Your task to perform on an android device: turn on showing notifications on the lock screen Image 0: 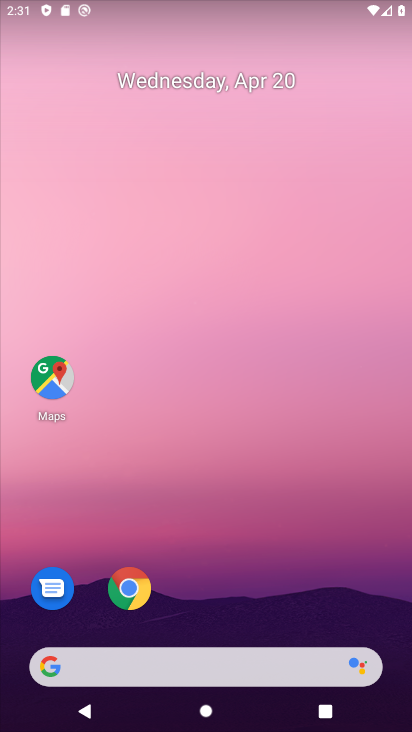
Step 0: click (237, 93)
Your task to perform on an android device: turn on showing notifications on the lock screen Image 1: 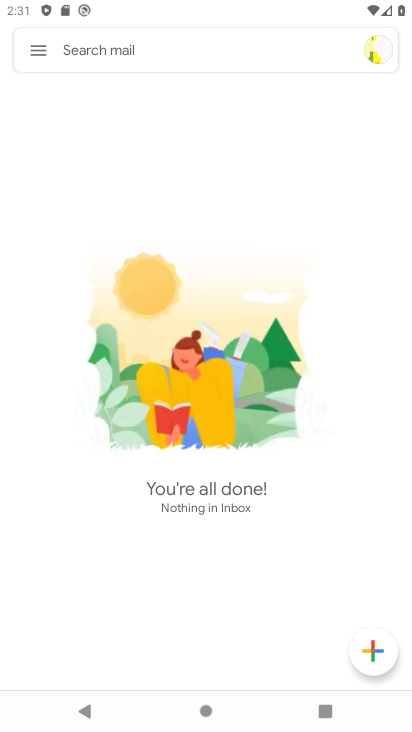
Step 1: press home button
Your task to perform on an android device: turn on showing notifications on the lock screen Image 2: 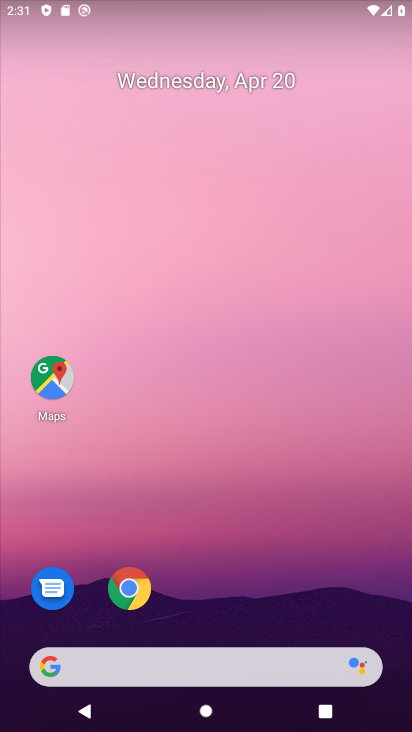
Step 2: drag from (220, 603) to (229, 121)
Your task to perform on an android device: turn on showing notifications on the lock screen Image 3: 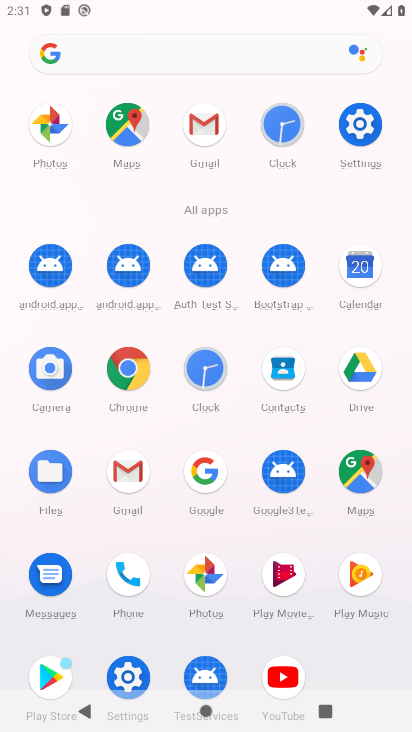
Step 3: click (348, 120)
Your task to perform on an android device: turn on showing notifications on the lock screen Image 4: 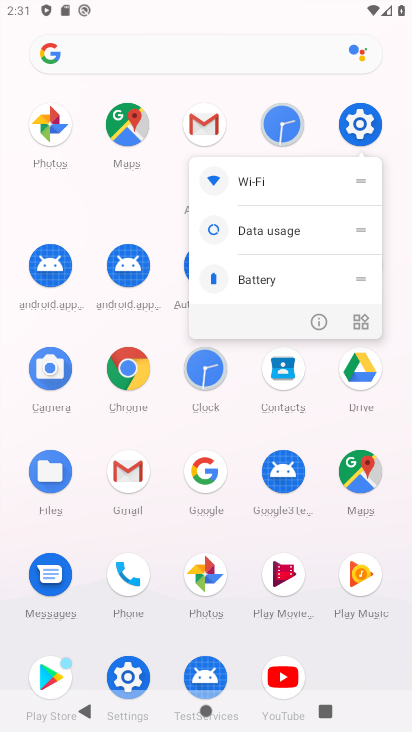
Step 4: click (348, 120)
Your task to perform on an android device: turn on showing notifications on the lock screen Image 5: 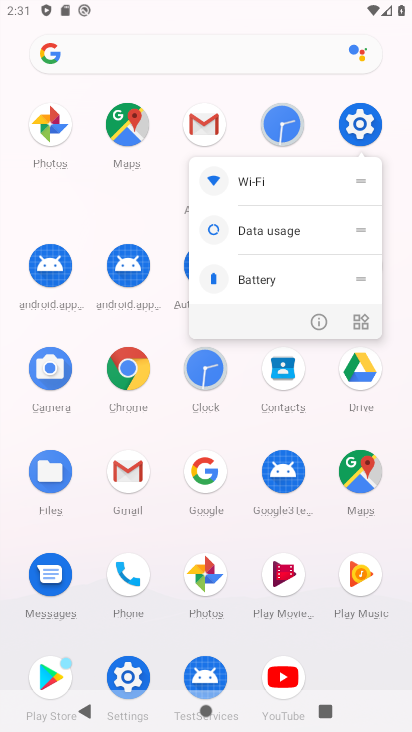
Step 5: click (348, 120)
Your task to perform on an android device: turn on showing notifications on the lock screen Image 6: 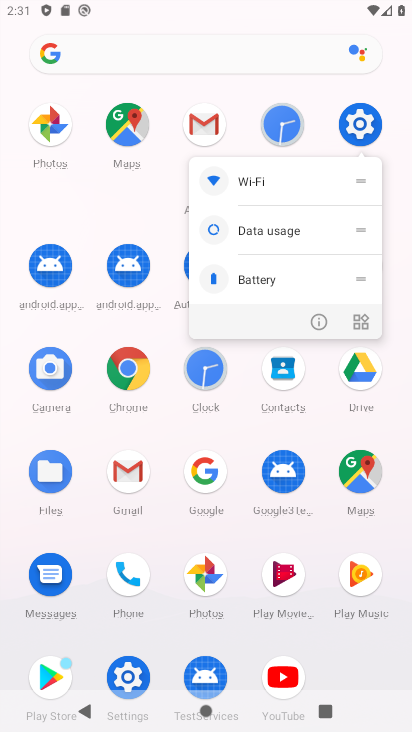
Step 6: click (351, 117)
Your task to perform on an android device: turn on showing notifications on the lock screen Image 7: 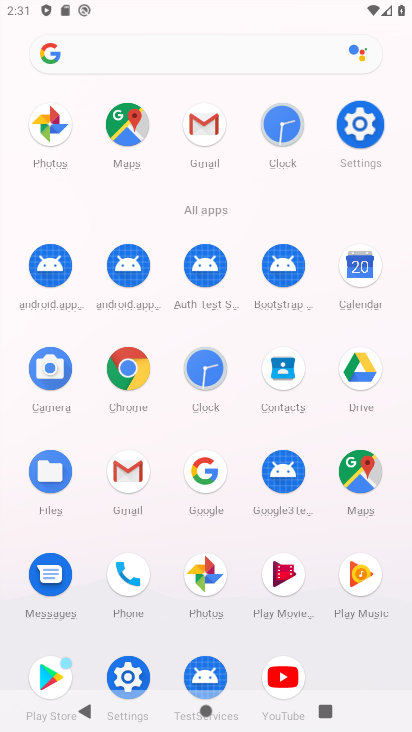
Step 7: click (351, 117)
Your task to perform on an android device: turn on showing notifications on the lock screen Image 8: 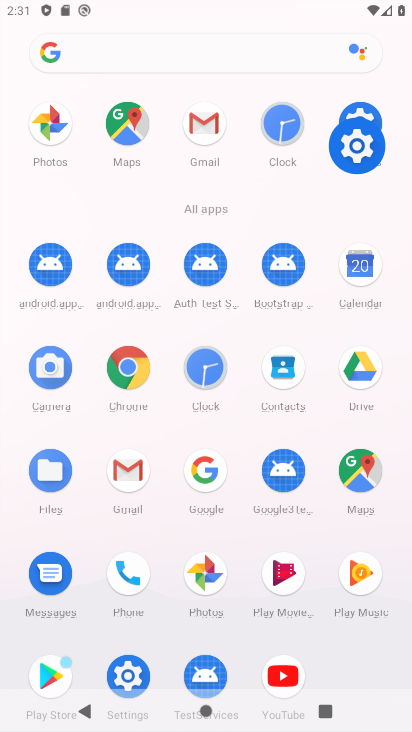
Step 8: click (351, 117)
Your task to perform on an android device: turn on showing notifications on the lock screen Image 9: 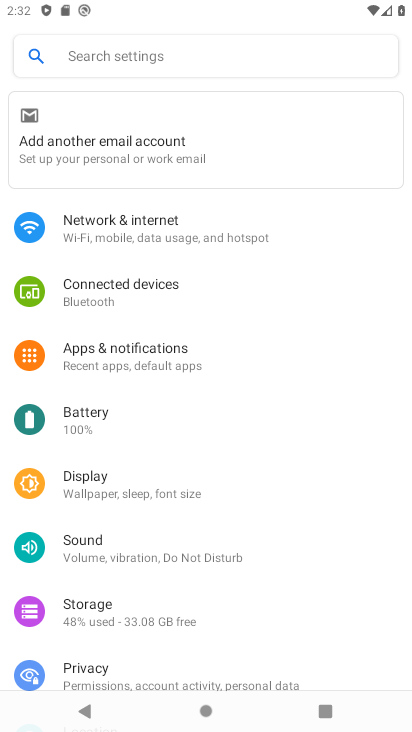
Step 9: click (129, 344)
Your task to perform on an android device: turn on showing notifications on the lock screen Image 10: 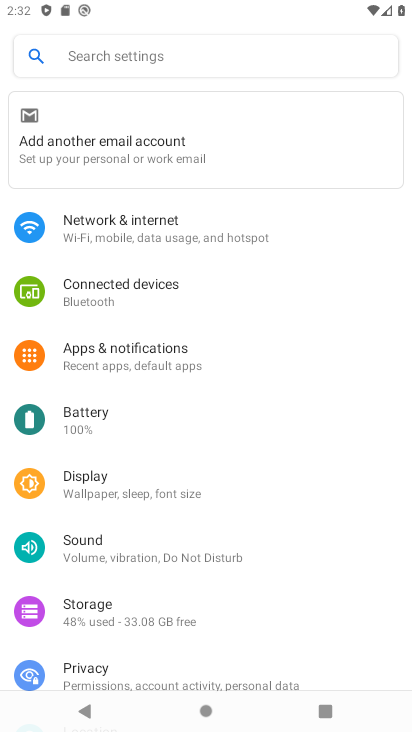
Step 10: click (148, 349)
Your task to perform on an android device: turn on showing notifications on the lock screen Image 11: 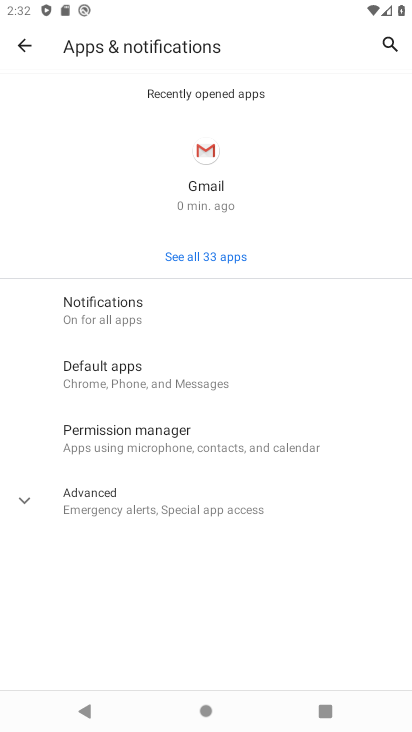
Step 11: click (94, 303)
Your task to perform on an android device: turn on showing notifications on the lock screen Image 12: 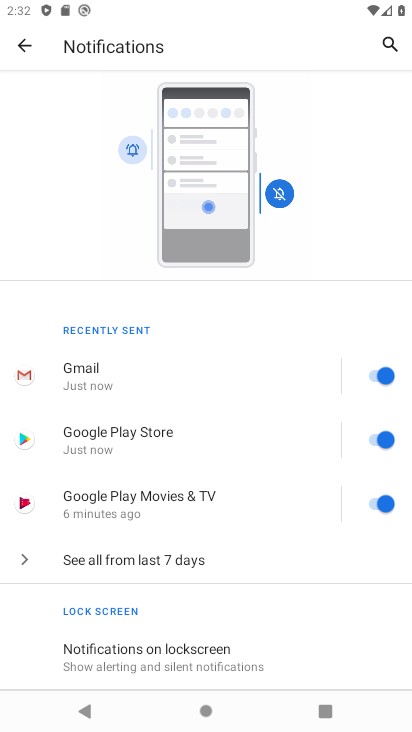
Step 12: drag from (175, 482) to (139, 254)
Your task to perform on an android device: turn on showing notifications on the lock screen Image 13: 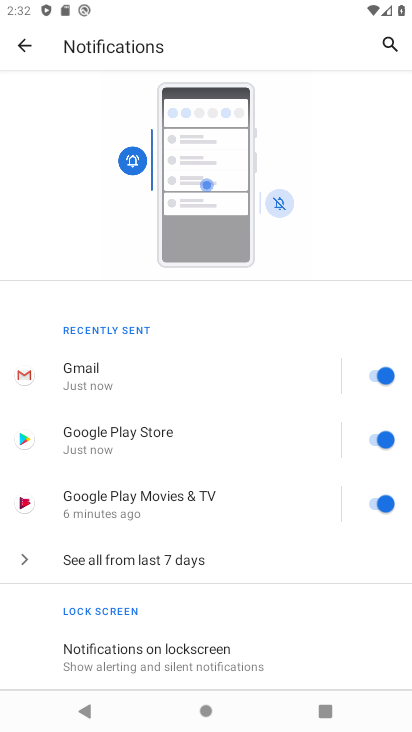
Step 13: drag from (225, 324) to (221, 178)
Your task to perform on an android device: turn on showing notifications on the lock screen Image 14: 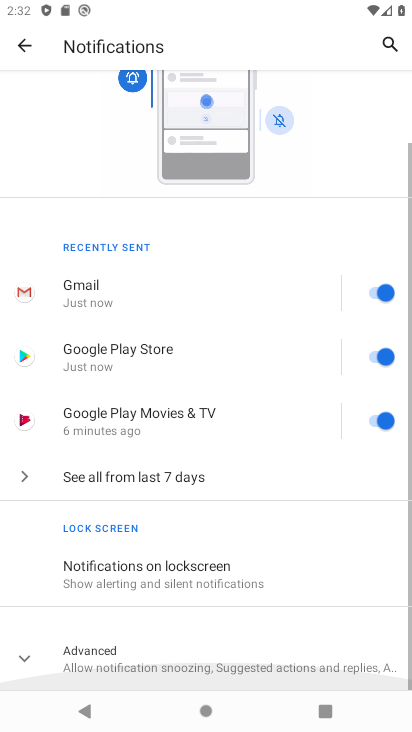
Step 14: drag from (258, 414) to (246, 229)
Your task to perform on an android device: turn on showing notifications on the lock screen Image 15: 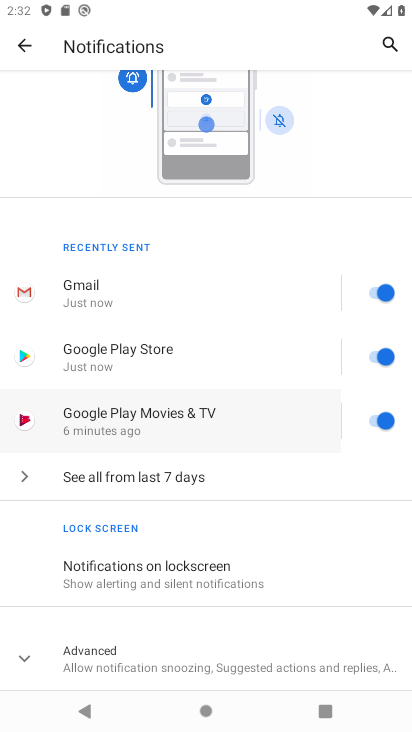
Step 15: drag from (237, 466) to (267, 245)
Your task to perform on an android device: turn on showing notifications on the lock screen Image 16: 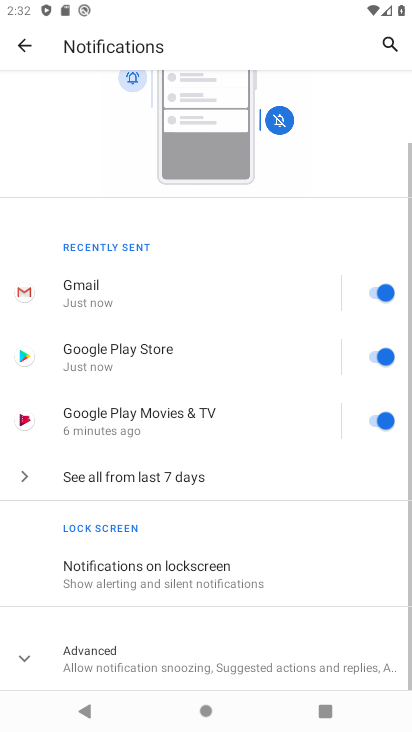
Step 16: click (145, 570)
Your task to perform on an android device: turn on showing notifications on the lock screen Image 17: 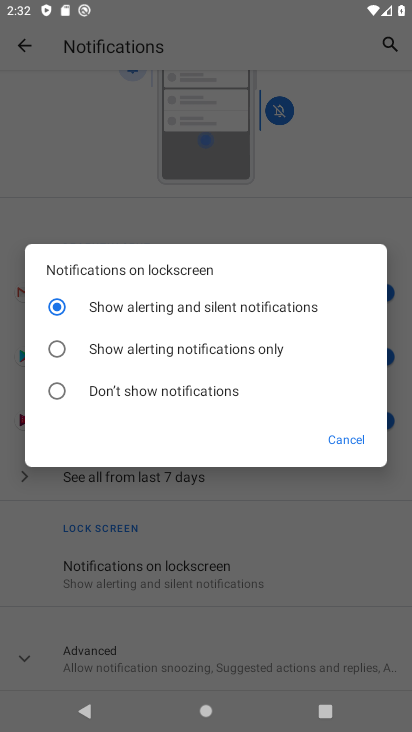
Step 17: click (163, 553)
Your task to perform on an android device: turn on showing notifications on the lock screen Image 18: 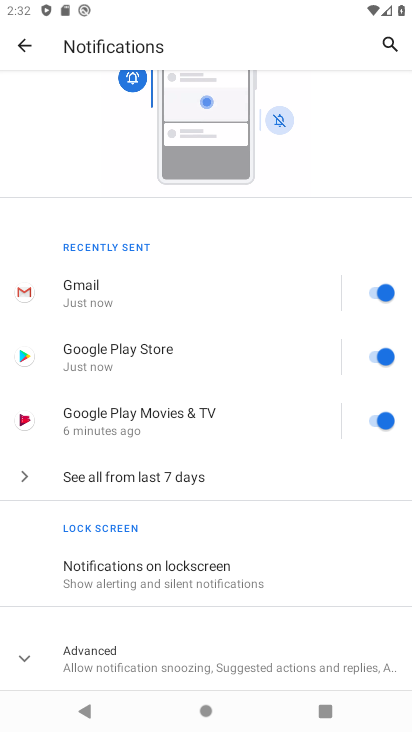
Step 18: click (160, 576)
Your task to perform on an android device: turn on showing notifications on the lock screen Image 19: 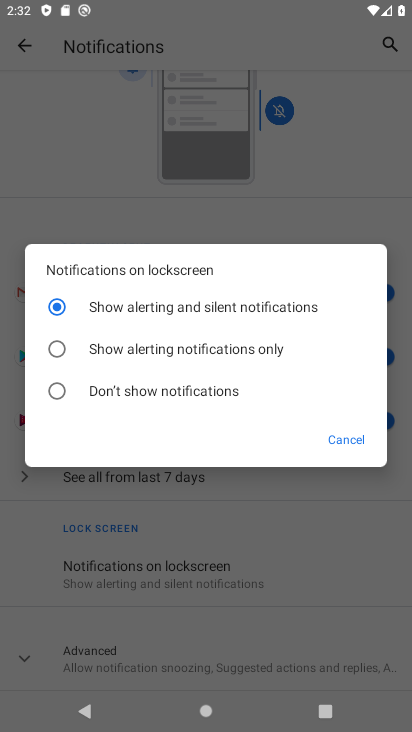
Step 19: click (344, 434)
Your task to perform on an android device: turn on showing notifications on the lock screen Image 20: 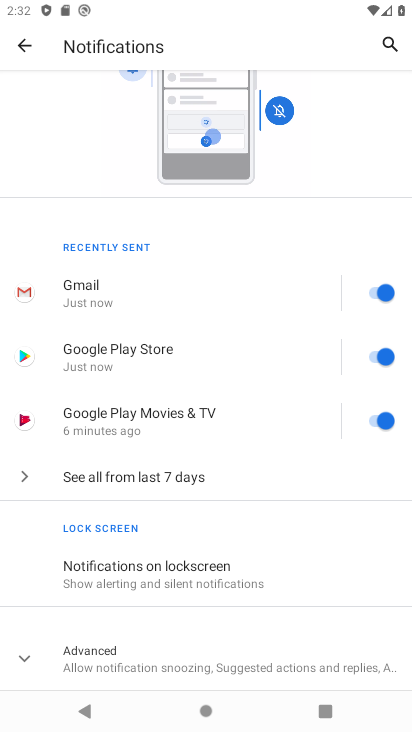
Step 20: drag from (218, 568) to (166, 188)
Your task to perform on an android device: turn on showing notifications on the lock screen Image 21: 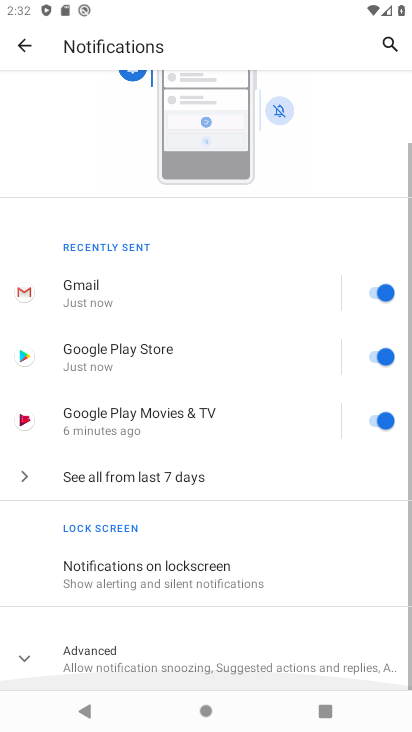
Step 21: click (138, 547)
Your task to perform on an android device: turn on showing notifications on the lock screen Image 22: 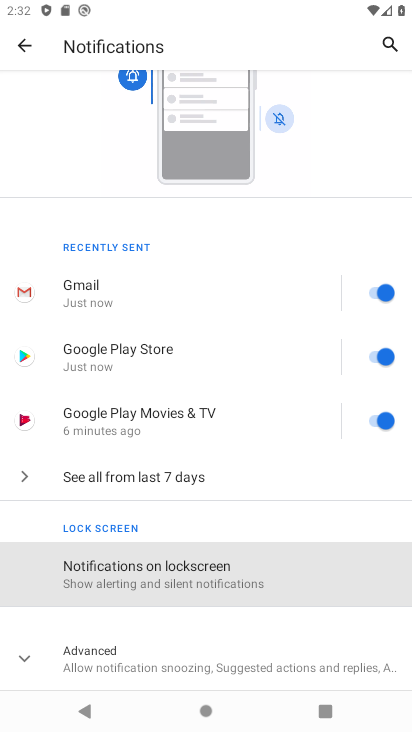
Step 22: click (142, 551)
Your task to perform on an android device: turn on showing notifications on the lock screen Image 23: 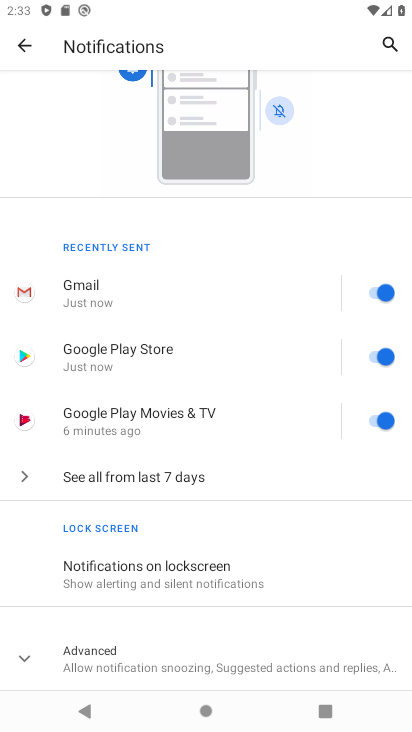
Step 23: click (156, 571)
Your task to perform on an android device: turn on showing notifications on the lock screen Image 24: 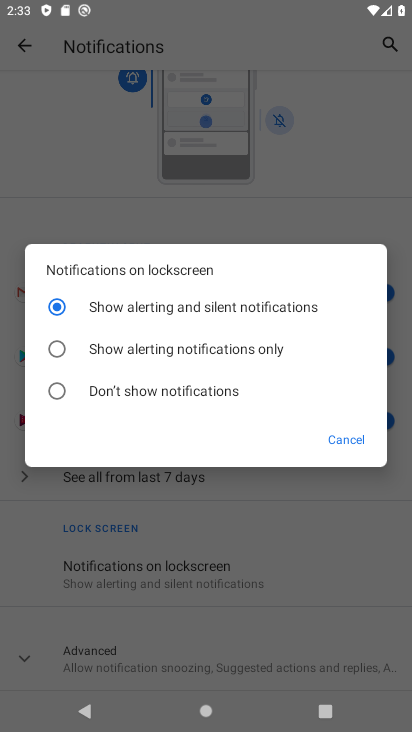
Step 24: click (333, 423)
Your task to perform on an android device: turn on showing notifications on the lock screen Image 25: 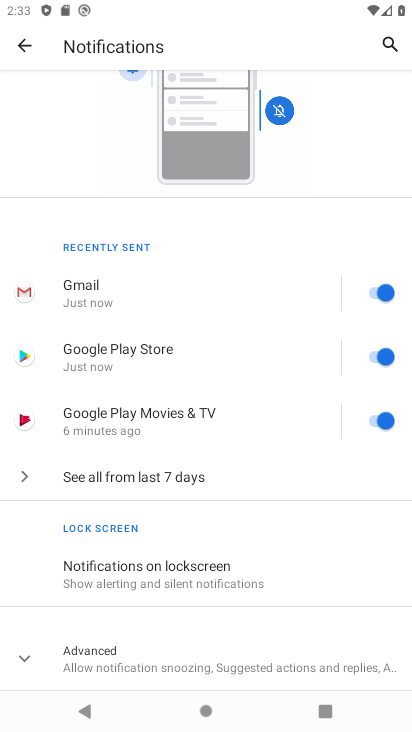
Step 25: task complete